Your task to perform on an android device: Open location settings Image 0: 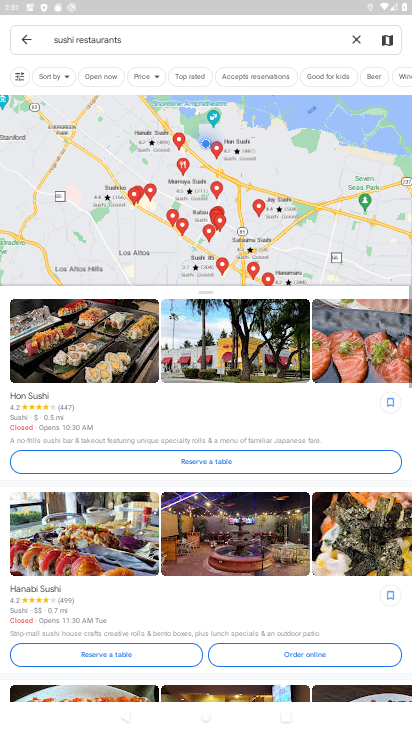
Step 0: press home button
Your task to perform on an android device: Open location settings Image 1: 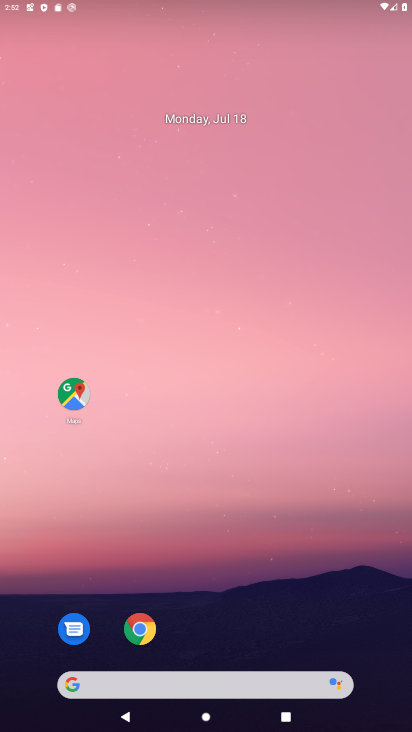
Step 1: drag from (233, 634) to (225, 155)
Your task to perform on an android device: Open location settings Image 2: 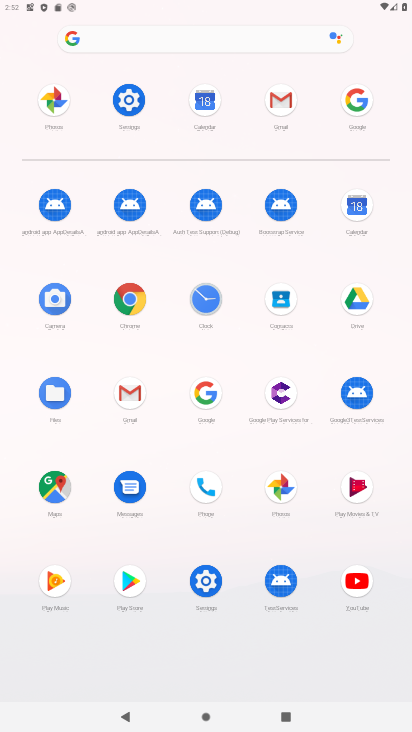
Step 2: click (149, 109)
Your task to perform on an android device: Open location settings Image 3: 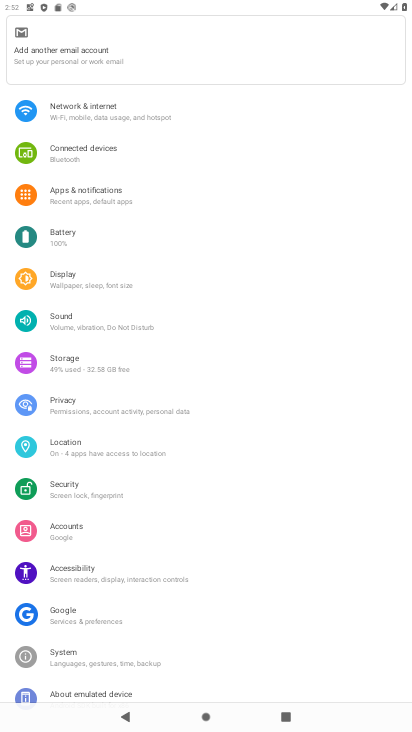
Step 3: click (119, 462)
Your task to perform on an android device: Open location settings Image 4: 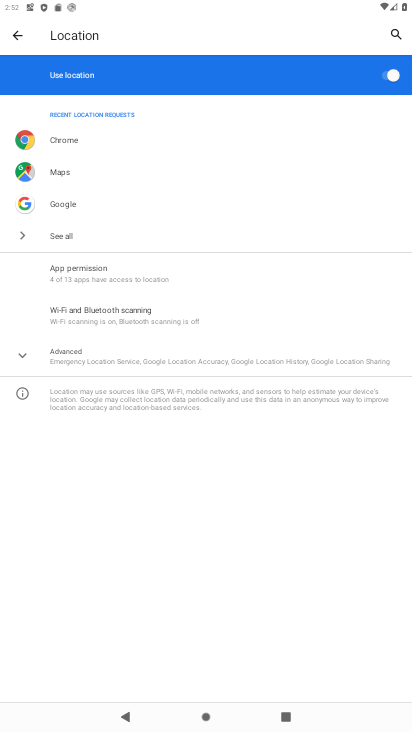
Step 4: task complete